Your task to perform on an android device: Check the weather Image 0: 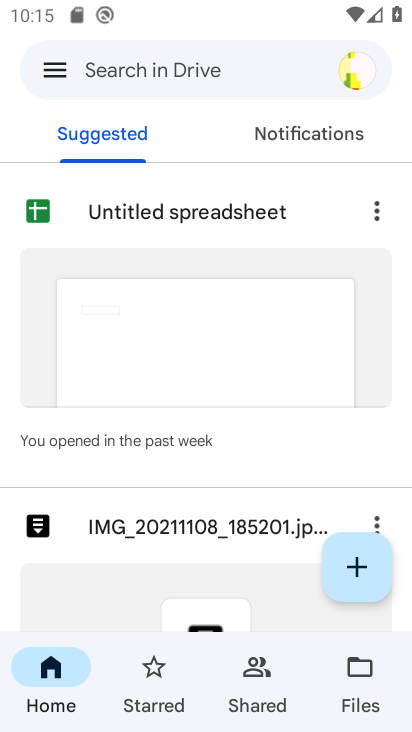
Step 0: press home button
Your task to perform on an android device: Check the weather Image 1: 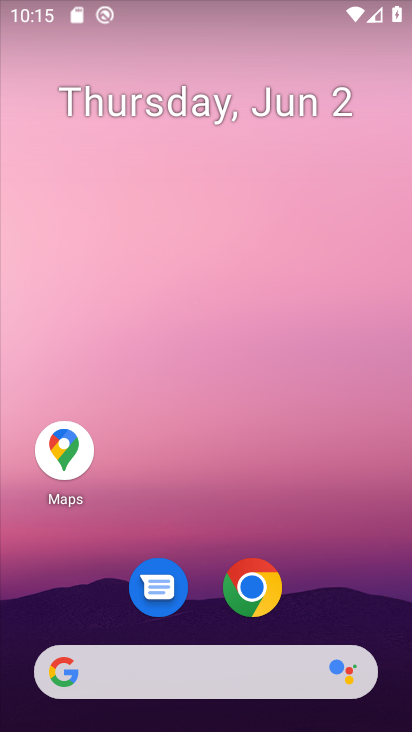
Step 1: drag from (26, 190) to (409, 215)
Your task to perform on an android device: Check the weather Image 2: 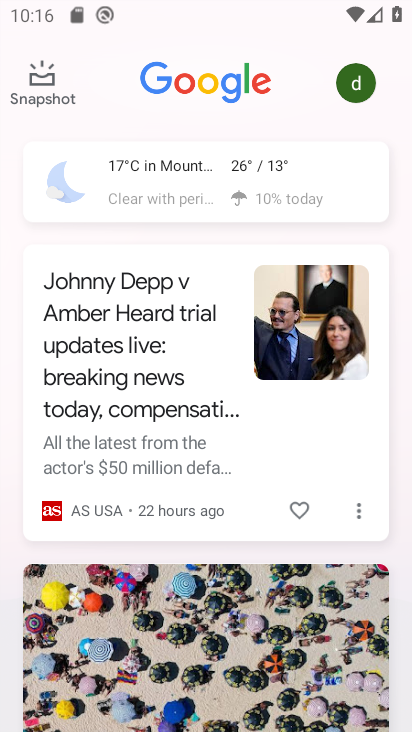
Step 2: click (331, 173)
Your task to perform on an android device: Check the weather Image 3: 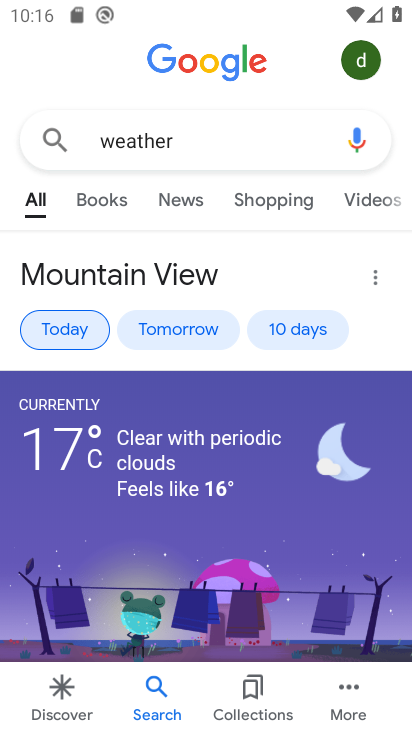
Step 3: task complete